Your task to perform on an android device: Open sound settings Image 0: 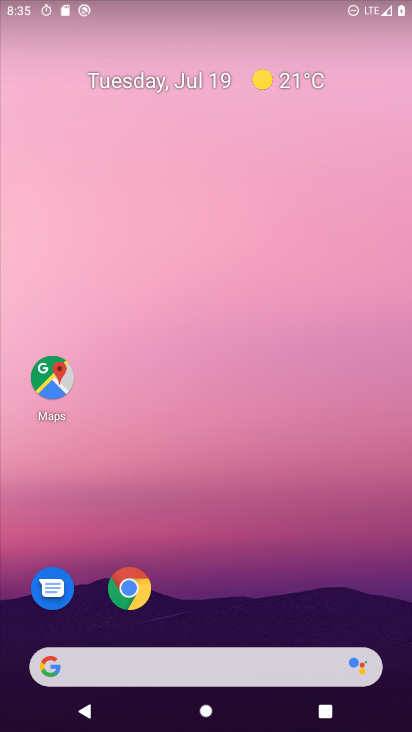
Step 0: drag from (227, 618) to (272, 184)
Your task to perform on an android device: Open sound settings Image 1: 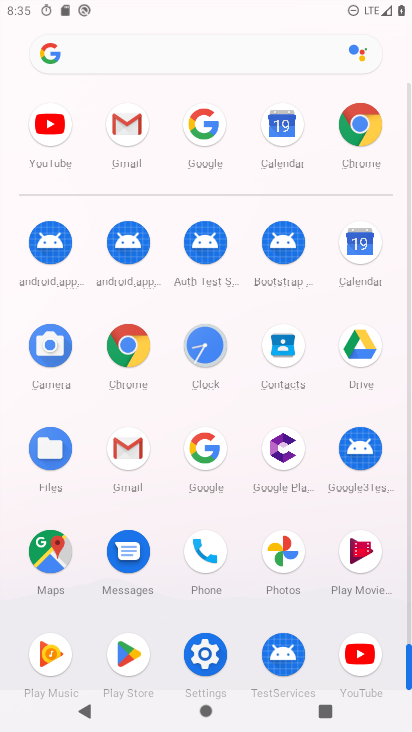
Step 1: click (202, 664)
Your task to perform on an android device: Open sound settings Image 2: 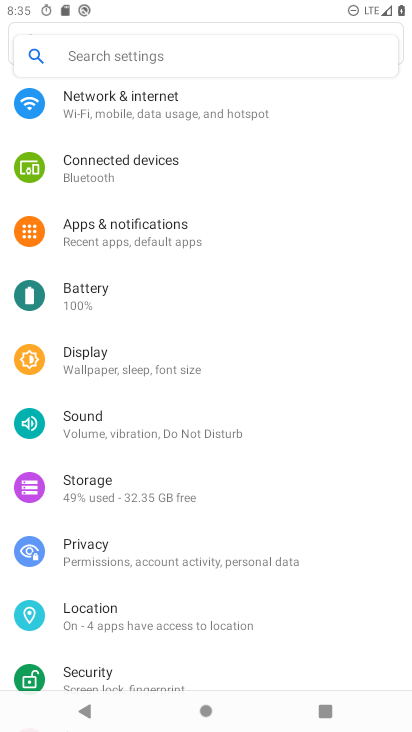
Step 2: click (154, 423)
Your task to perform on an android device: Open sound settings Image 3: 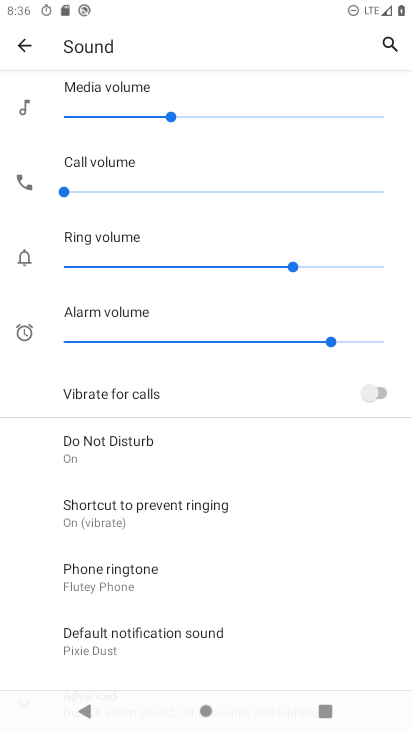
Step 3: task complete